Your task to perform on an android device: Open calendar and show me the second week of next month Image 0: 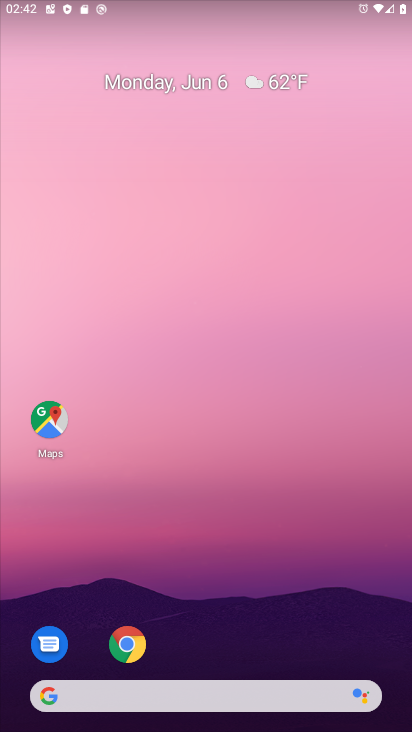
Step 0: drag from (150, 728) to (131, 35)
Your task to perform on an android device: Open calendar and show me the second week of next month Image 1: 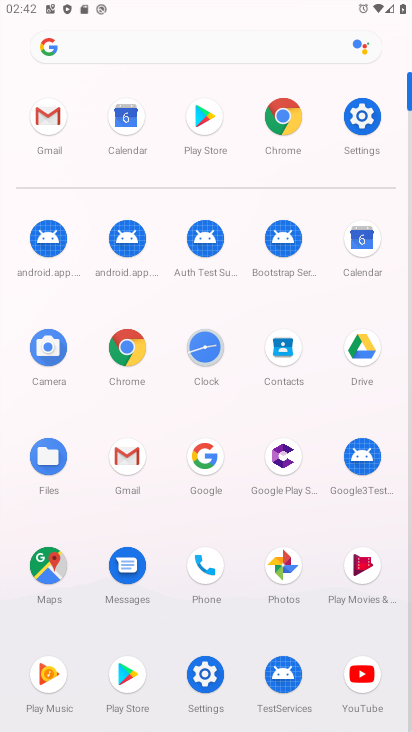
Step 1: click (363, 248)
Your task to perform on an android device: Open calendar and show me the second week of next month Image 2: 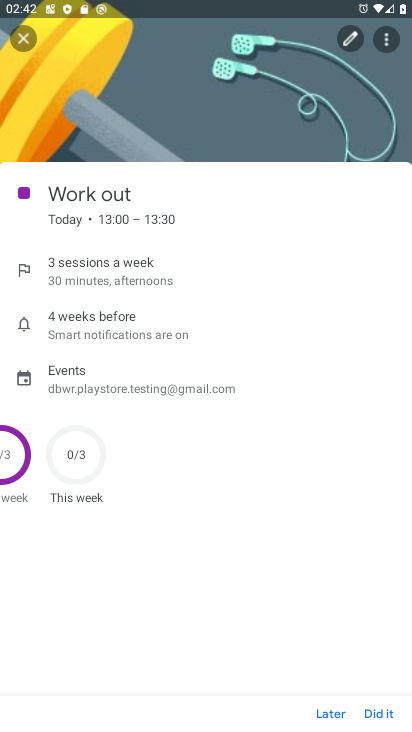
Step 2: click (28, 38)
Your task to perform on an android device: Open calendar and show me the second week of next month Image 3: 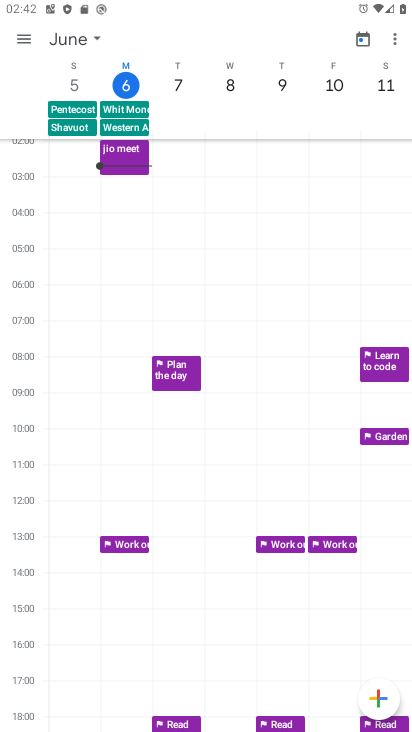
Step 3: click (89, 38)
Your task to perform on an android device: Open calendar and show me the second week of next month Image 4: 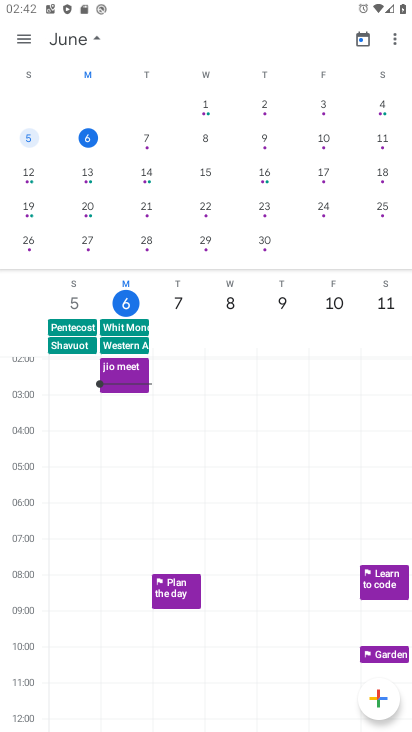
Step 4: drag from (388, 245) to (1, 241)
Your task to perform on an android device: Open calendar and show me the second week of next month Image 5: 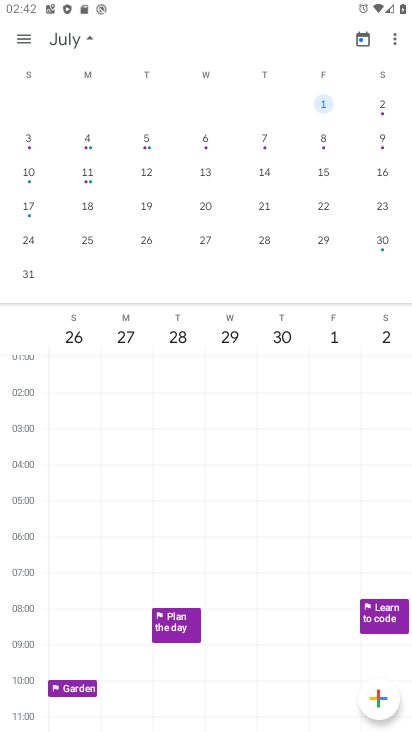
Step 5: click (93, 40)
Your task to perform on an android device: Open calendar and show me the second week of next month Image 6: 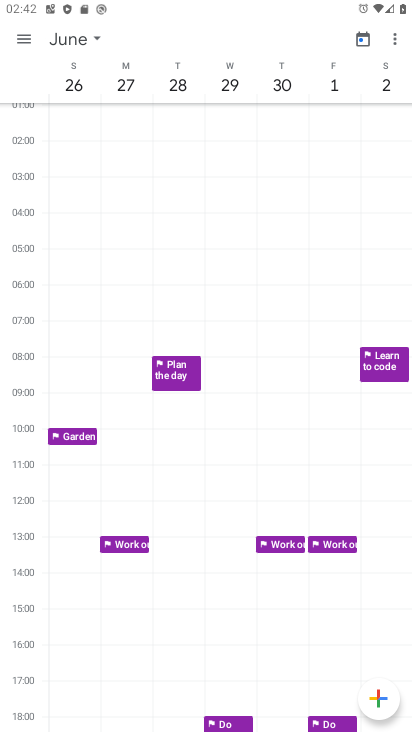
Step 6: click (90, 36)
Your task to perform on an android device: Open calendar and show me the second week of next month Image 7: 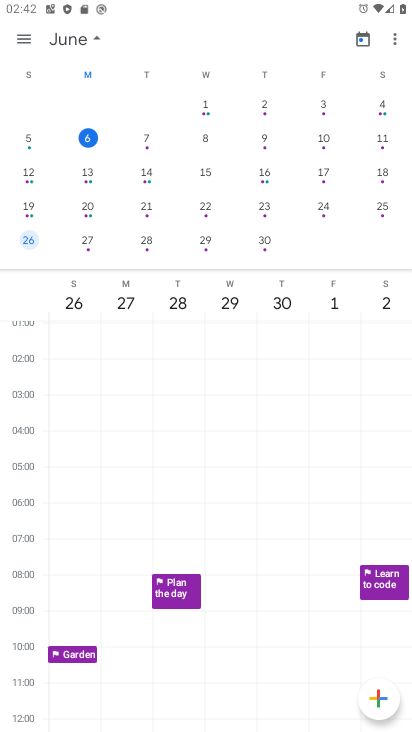
Step 7: click (97, 39)
Your task to perform on an android device: Open calendar and show me the second week of next month Image 8: 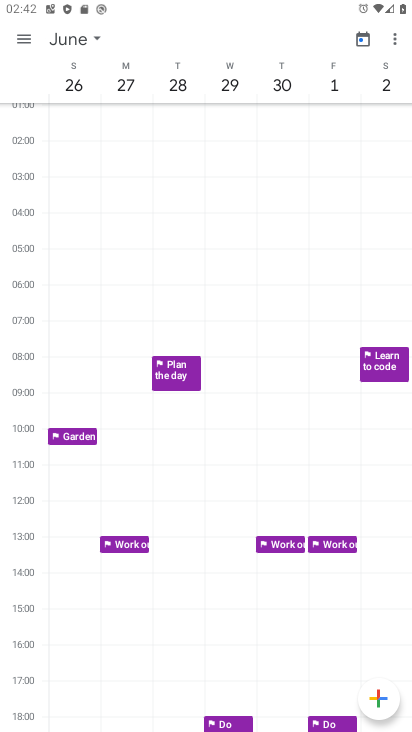
Step 8: task complete